Your task to perform on an android device: turn on the 24-hour format for clock Image 0: 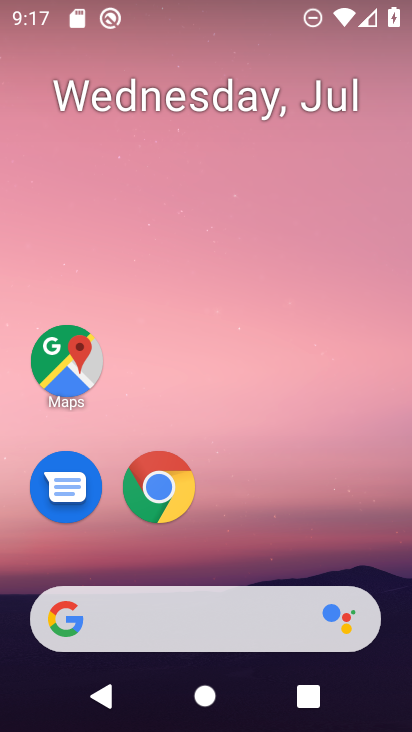
Step 0: drag from (344, 550) to (365, 99)
Your task to perform on an android device: turn on the 24-hour format for clock Image 1: 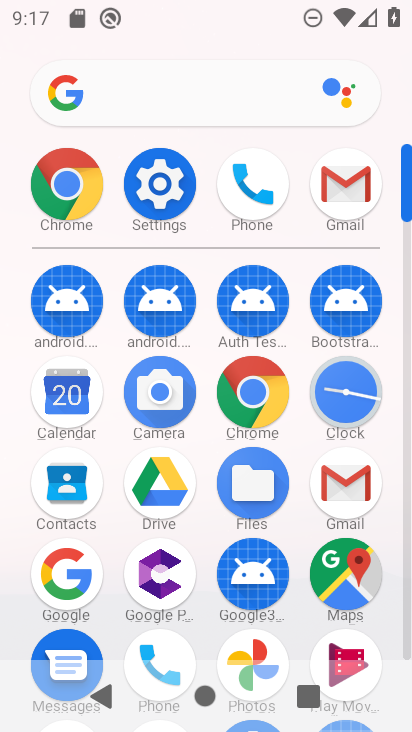
Step 1: click (358, 398)
Your task to perform on an android device: turn on the 24-hour format for clock Image 2: 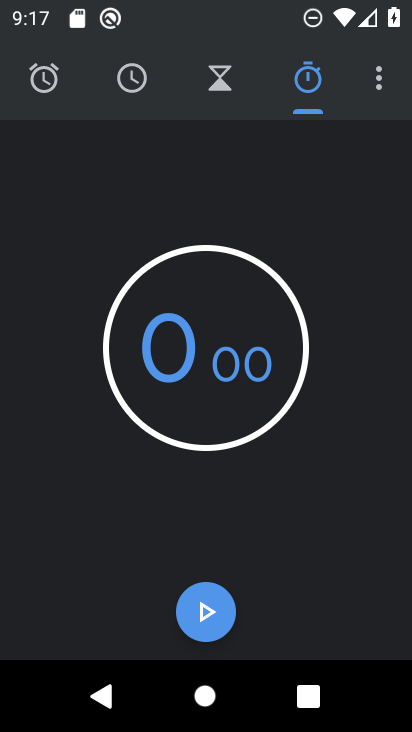
Step 2: click (380, 87)
Your task to perform on an android device: turn on the 24-hour format for clock Image 3: 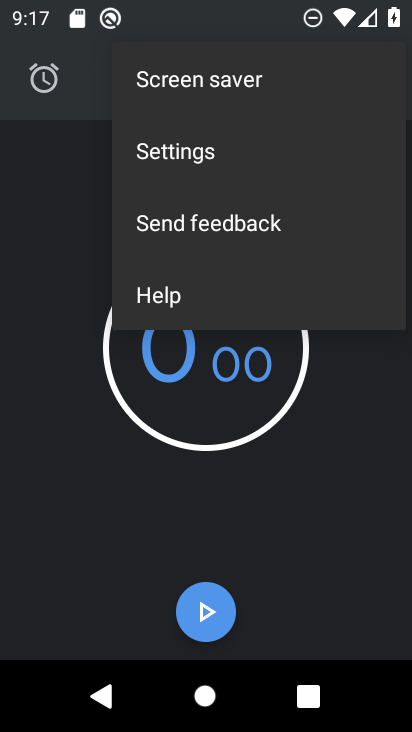
Step 3: click (252, 152)
Your task to perform on an android device: turn on the 24-hour format for clock Image 4: 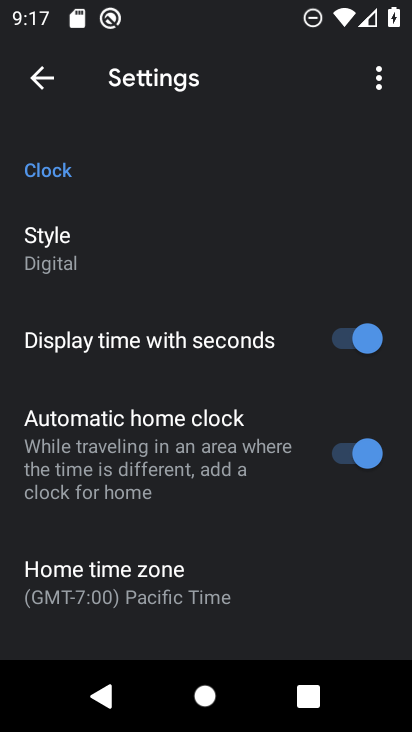
Step 4: drag from (279, 477) to (259, 392)
Your task to perform on an android device: turn on the 24-hour format for clock Image 5: 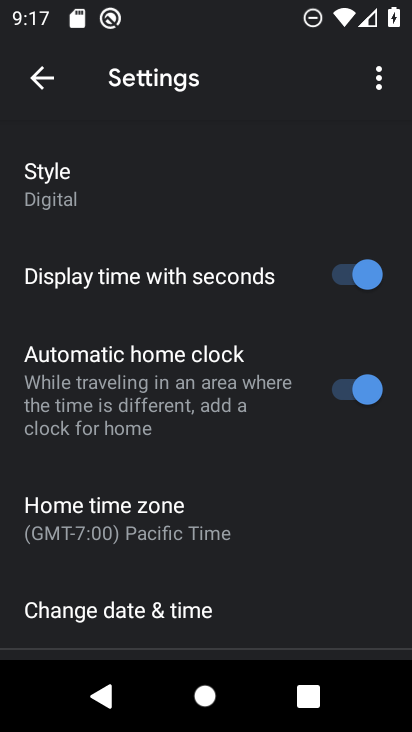
Step 5: drag from (299, 533) to (304, 390)
Your task to perform on an android device: turn on the 24-hour format for clock Image 6: 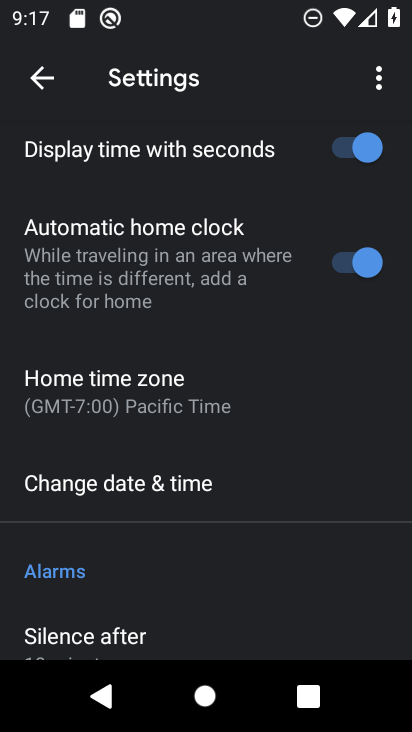
Step 6: click (194, 494)
Your task to perform on an android device: turn on the 24-hour format for clock Image 7: 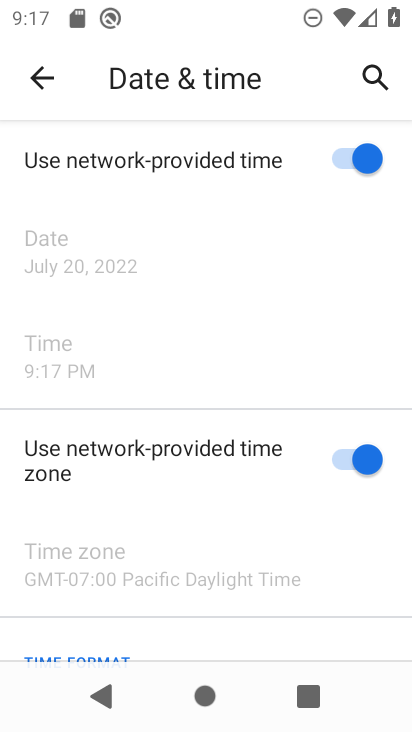
Step 7: drag from (282, 591) to (287, 485)
Your task to perform on an android device: turn on the 24-hour format for clock Image 8: 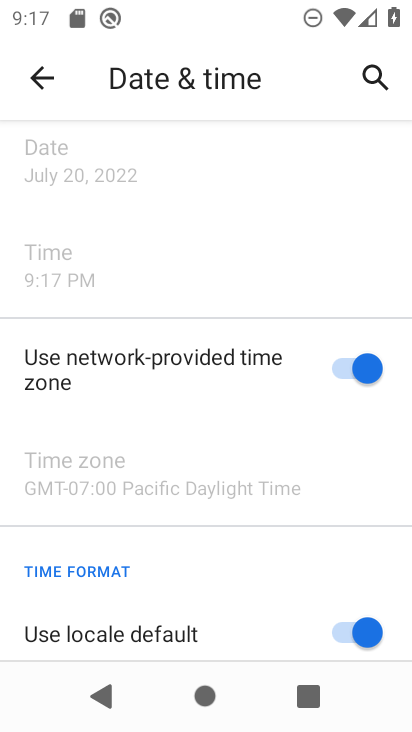
Step 8: drag from (276, 588) to (275, 477)
Your task to perform on an android device: turn on the 24-hour format for clock Image 9: 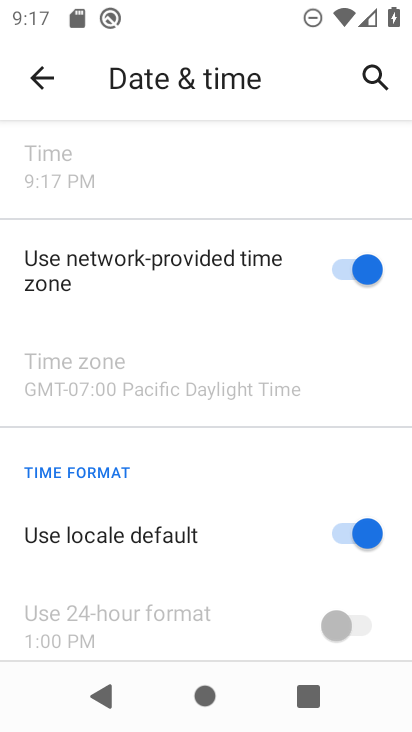
Step 9: click (372, 529)
Your task to perform on an android device: turn on the 24-hour format for clock Image 10: 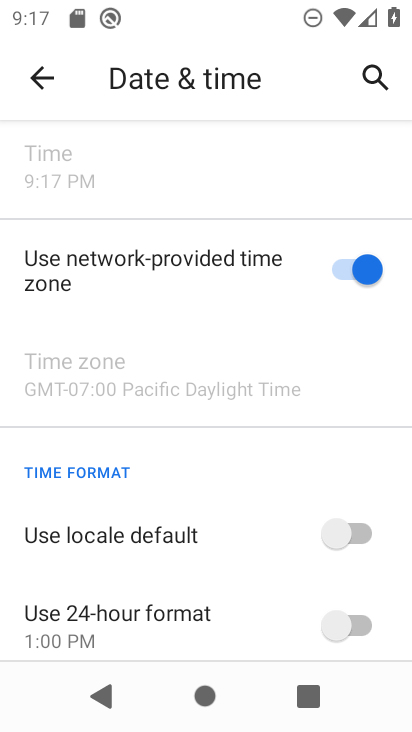
Step 10: click (344, 629)
Your task to perform on an android device: turn on the 24-hour format for clock Image 11: 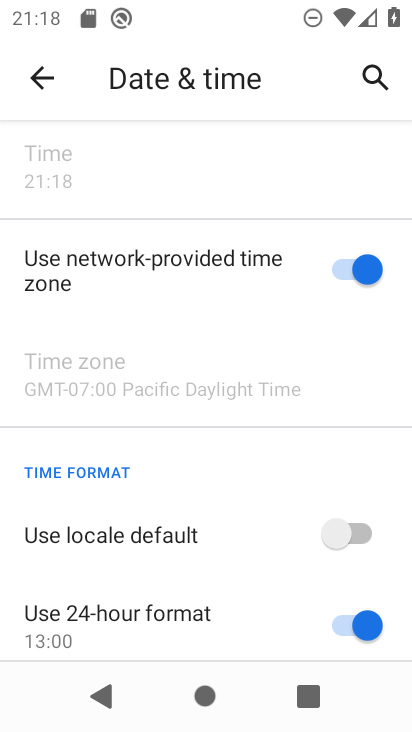
Step 11: task complete